Your task to perform on an android device: Search for Italian restaurants on Maps Image 0: 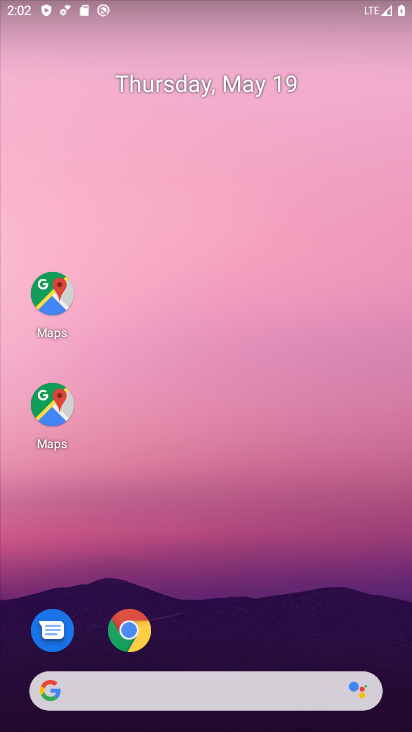
Step 0: drag from (247, 452) to (195, 72)
Your task to perform on an android device: Search for Italian restaurants on Maps Image 1: 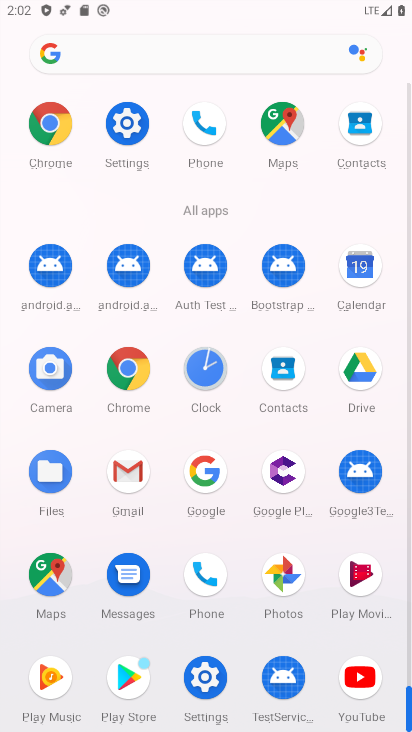
Step 1: drag from (4, 536) to (3, 298)
Your task to perform on an android device: Search for Italian restaurants on Maps Image 2: 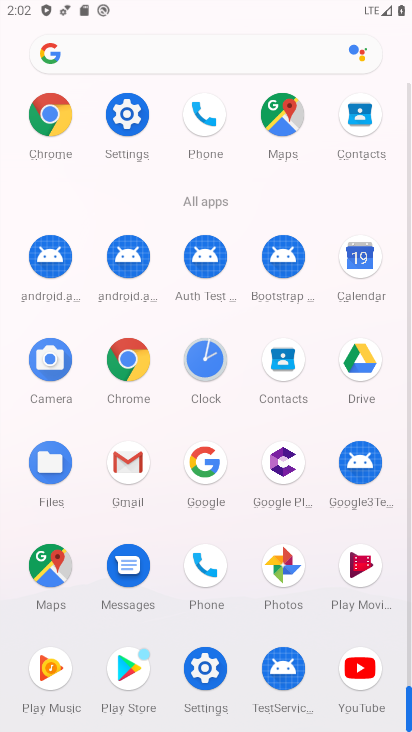
Step 2: drag from (17, 568) to (9, 299)
Your task to perform on an android device: Search for Italian restaurants on Maps Image 3: 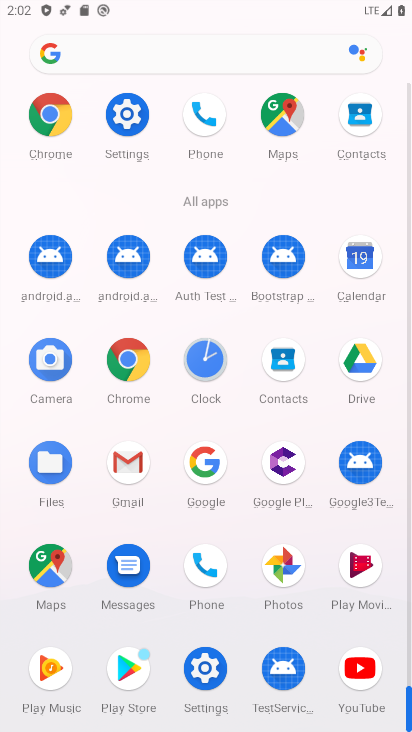
Step 3: click (50, 567)
Your task to perform on an android device: Search for Italian restaurants on Maps Image 4: 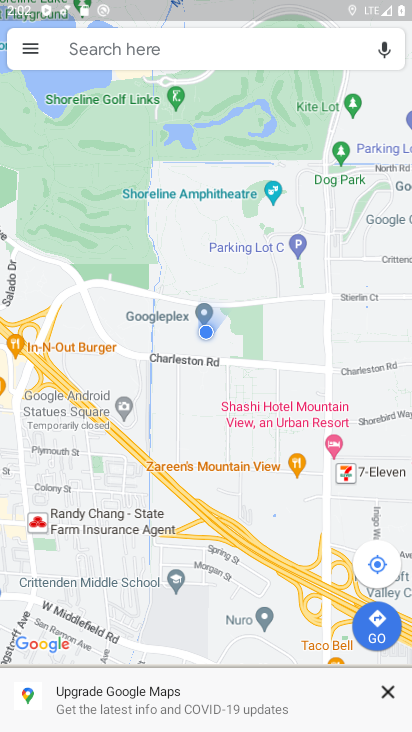
Step 4: click (172, 54)
Your task to perform on an android device: Search for Italian restaurants on Maps Image 5: 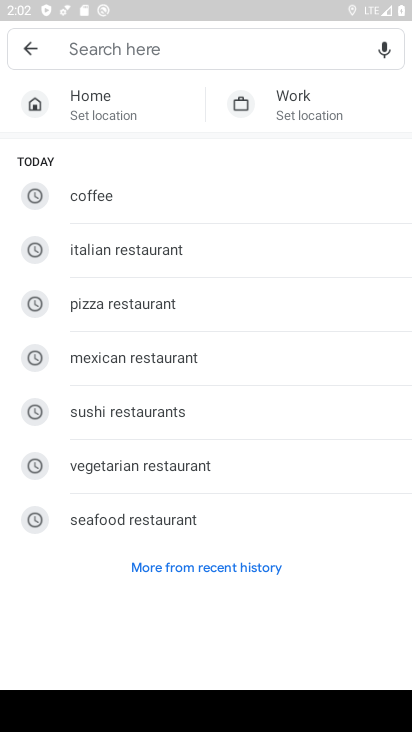
Step 5: click (150, 260)
Your task to perform on an android device: Search for Italian restaurants on Maps Image 6: 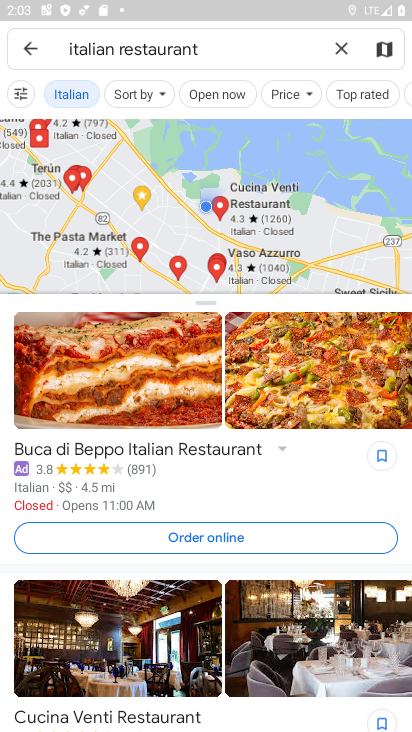
Step 6: task complete